Your task to perform on an android device: change notifications settings Image 0: 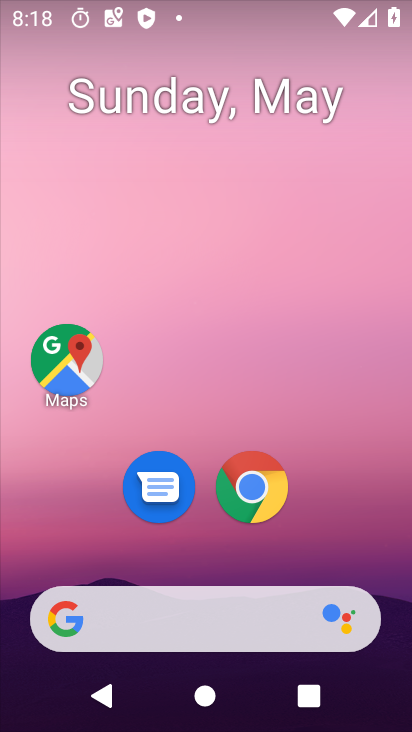
Step 0: click (336, 486)
Your task to perform on an android device: change notifications settings Image 1: 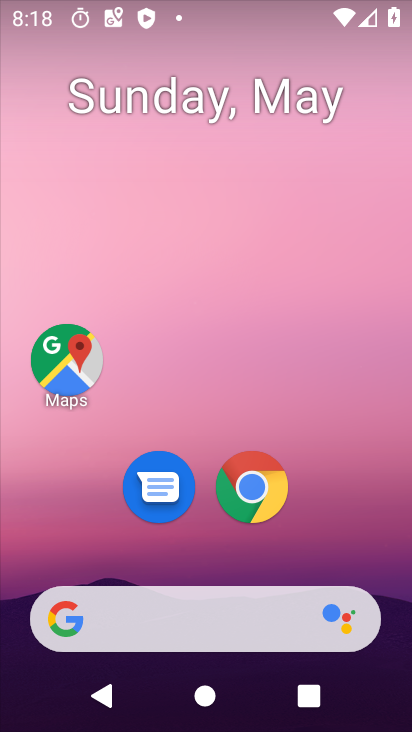
Step 1: press home button
Your task to perform on an android device: change notifications settings Image 2: 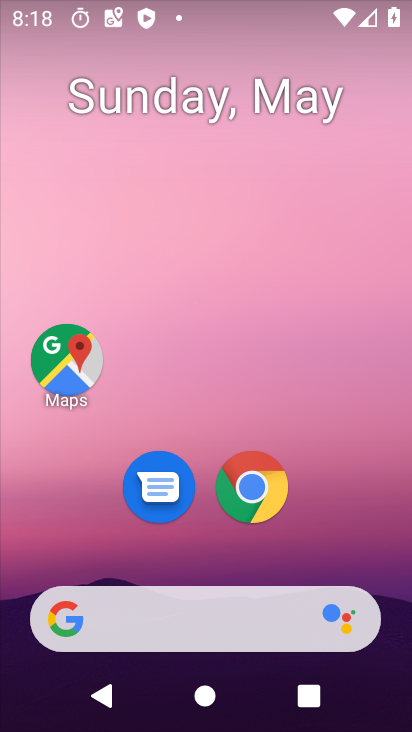
Step 2: drag from (23, 615) to (255, 122)
Your task to perform on an android device: change notifications settings Image 3: 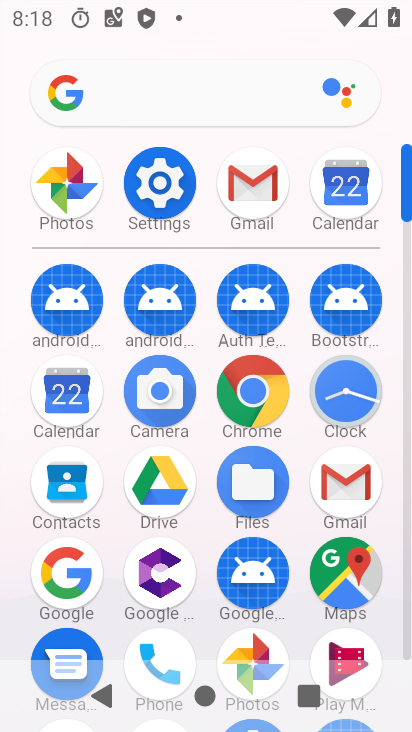
Step 3: click (179, 175)
Your task to perform on an android device: change notifications settings Image 4: 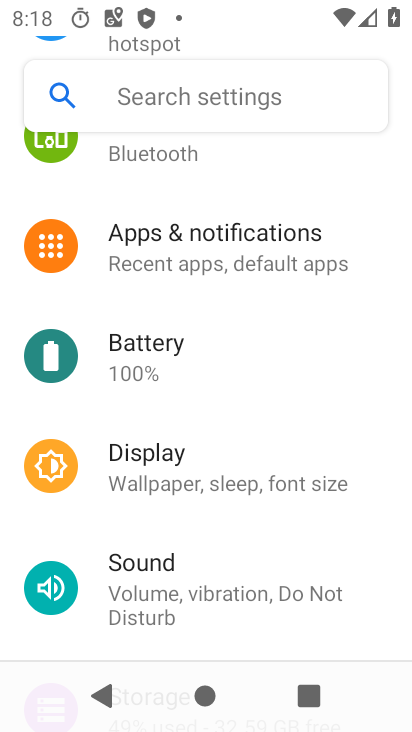
Step 4: click (173, 266)
Your task to perform on an android device: change notifications settings Image 5: 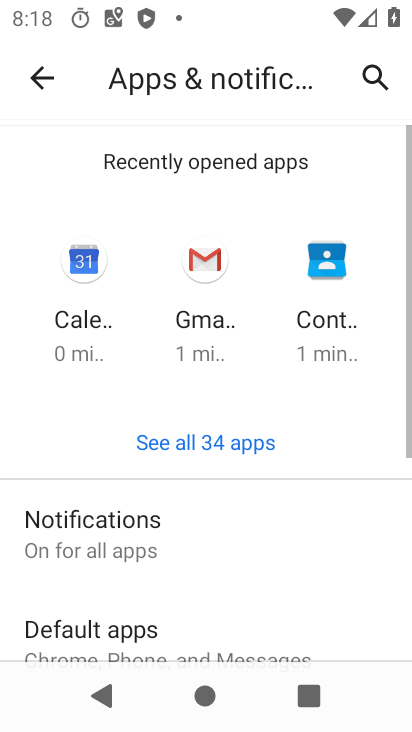
Step 5: click (104, 523)
Your task to perform on an android device: change notifications settings Image 6: 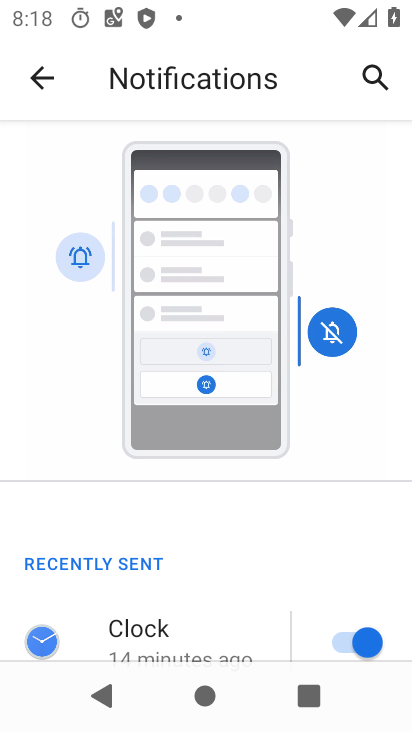
Step 6: task complete